Your task to perform on an android device: toggle data saver in the chrome app Image 0: 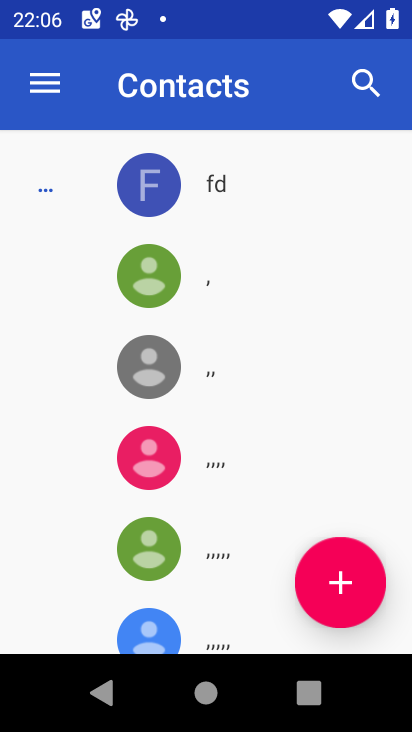
Step 0: press home button
Your task to perform on an android device: toggle data saver in the chrome app Image 1: 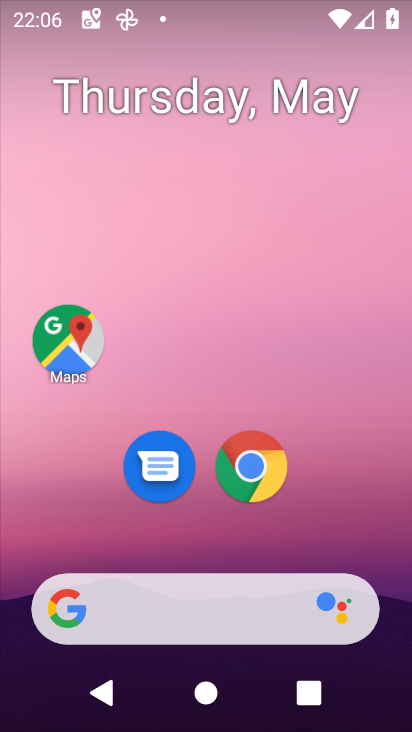
Step 1: drag from (396, 538) to (371, 0)
Your task to perform on an android device: toggle data saver in the chrome app Image 2: 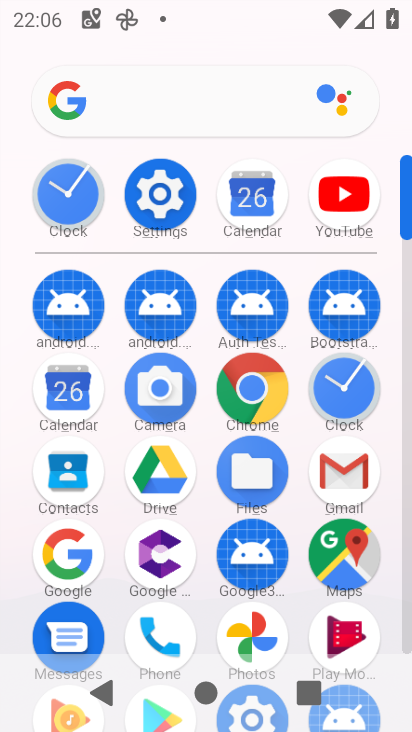
Step 2: click (251, 395)
Your task to perform on an android device: toggle data saver in the chrome app Image 3: 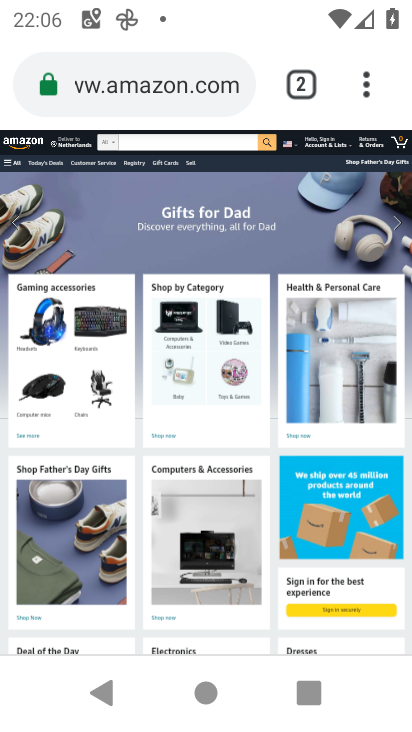
Step 3: click (359, 88)
Your task to perform on an android device: toggle data saver in the chrome app Image 4: 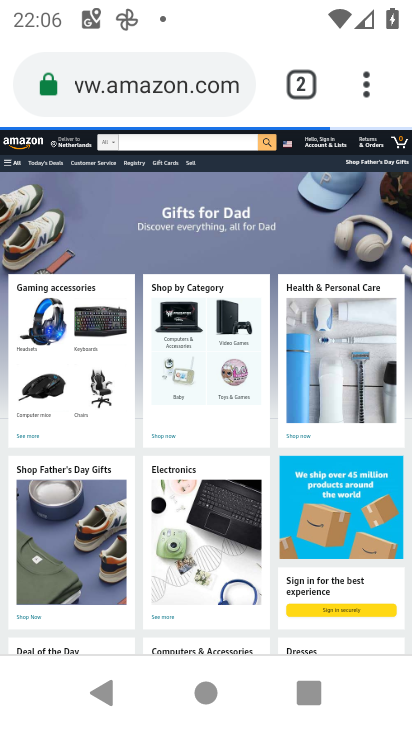
Step 4: click (363, 96)
Your task to perform on an android device: toggle data saver in the chrome app Image 5: 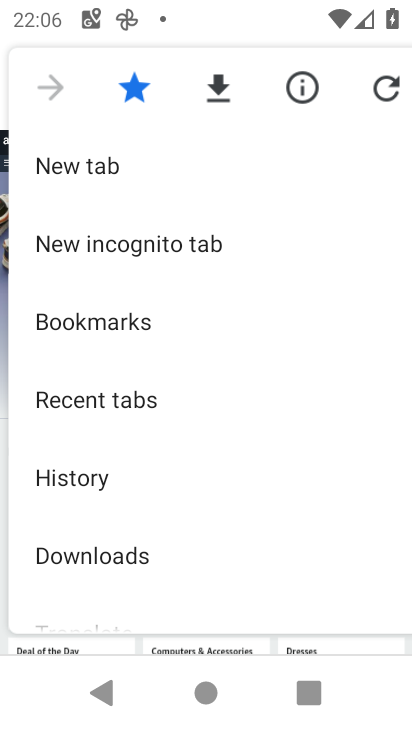
Step 5: drag from (191, 563) to (211, 258)
Your task to perform on an android device: toggle data saver in the chrome app Image 6: 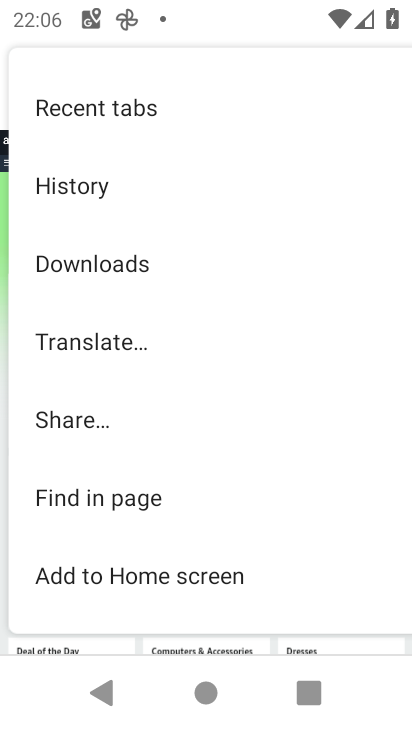
Step 6: drag from (183, 600) to (187, 124)
Your task to perform on an android device: toggle data saver in the chrome app Image 7: 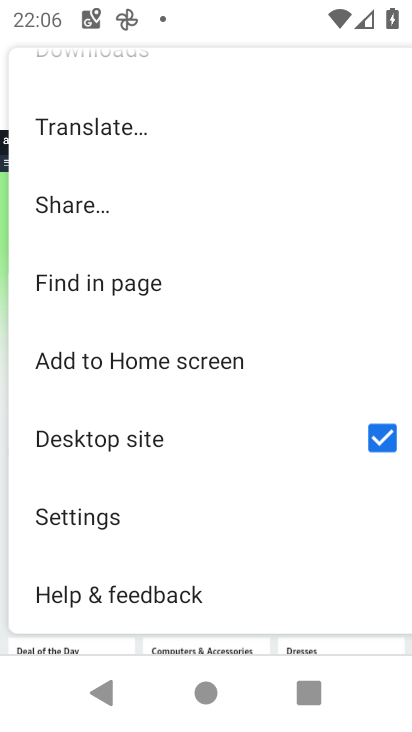
Step 7: click (156, 522)
Your task to perform on an android device: toggle data saver in the chrome app Image 8: 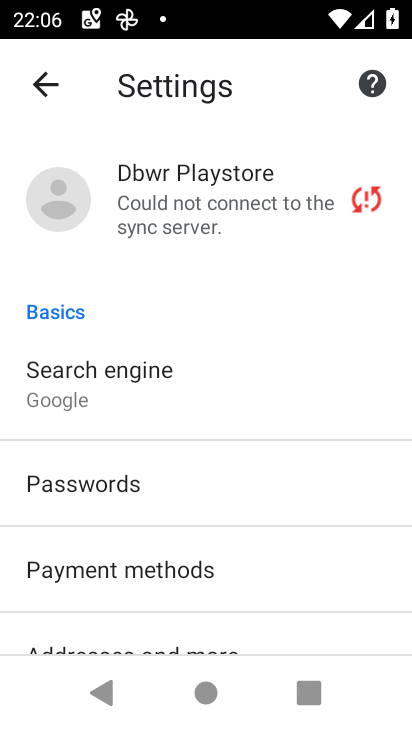
Step 8: drag from (156, 522) to (168, 138)
Your task to perform on an android device: toggle data saver in the chrome app Image 9: 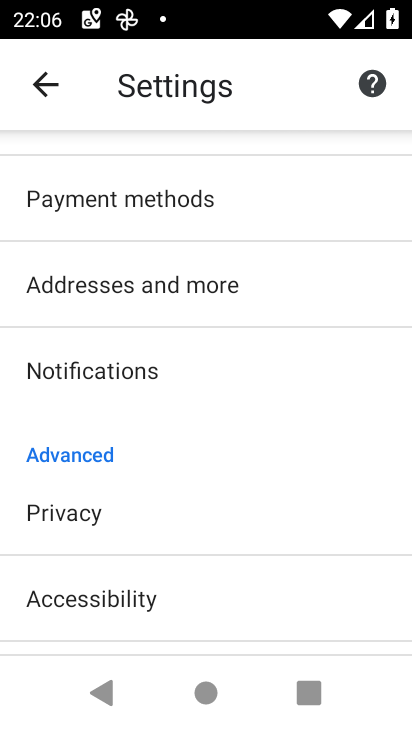
Step 9: drag from (198, 531) to (222, 248)
Your task to perform on an android device: toggle data saver in the chrome app Image 10: 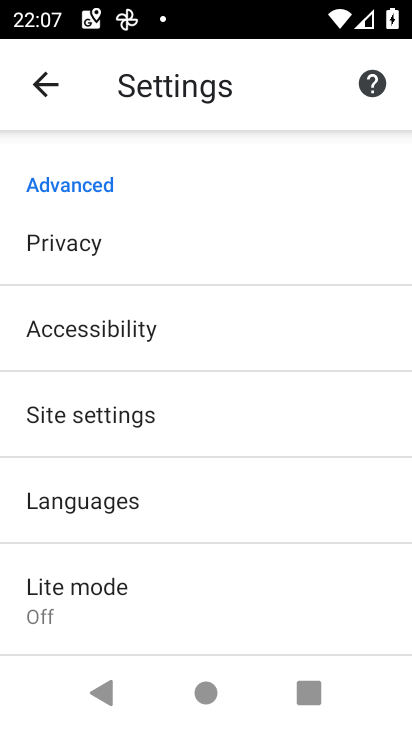
Step 10: click (202, 572)
Your task to perform on an android device: toggle data saver in the chrome app Image 11: 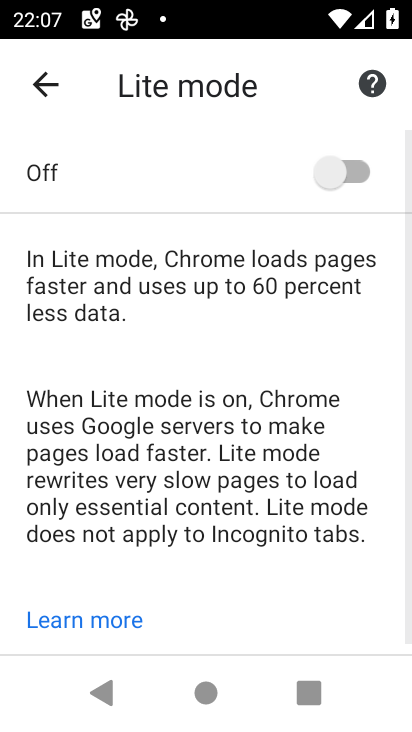
Step 11: click (317, 196)
Your task to perform on an android device: toggle data saver in the chrome app Image 12: 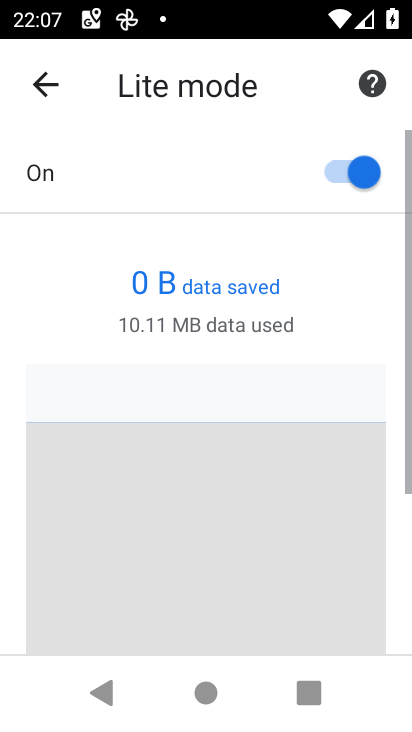
Step 12: task complete